Your task to perform on an android device: Go to Google maps Image 0: 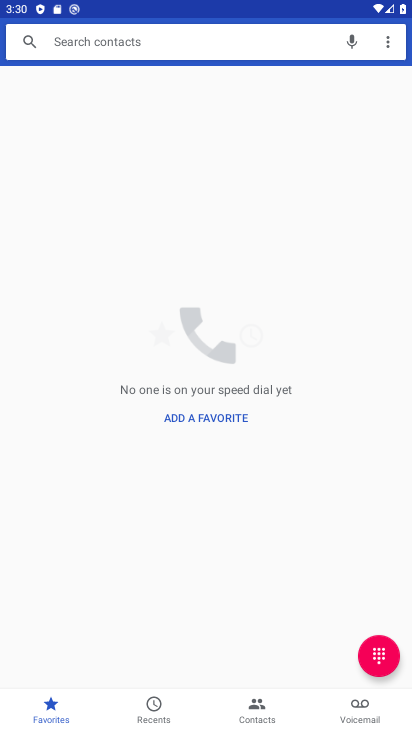
Step 0: press back button
Your task to perform on an android device: Go to Google maps Image 1: 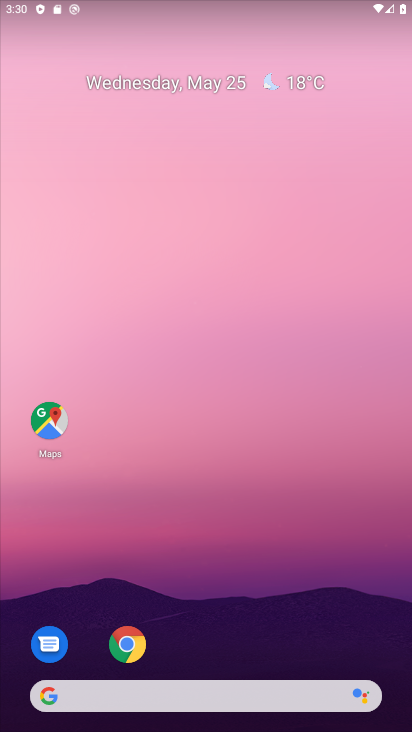
Step 1: click (47, 421)
Your task to perform on an android device: Go to Google maps Image 2: 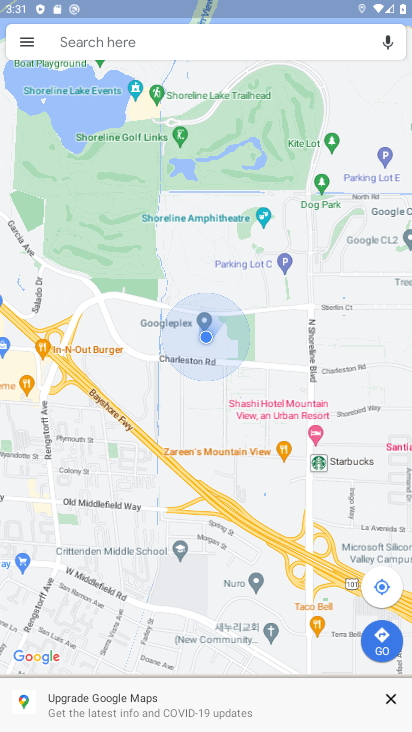
Step 2: task complete